Your task to perform on an android device: Open the map Image 0: 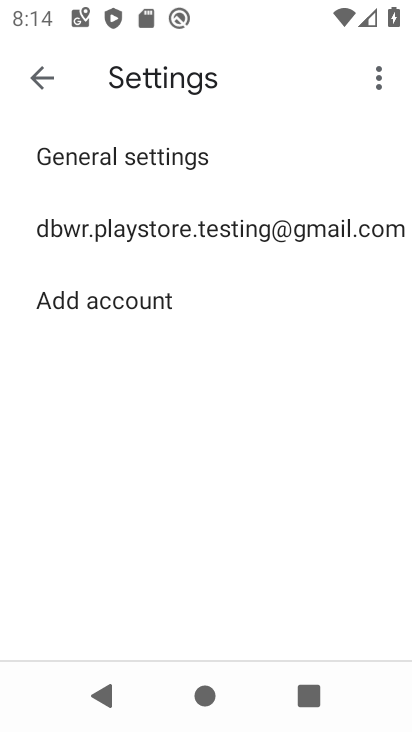
Step 0: press home button
Your task to perform on an android device: Open the map Image 1: 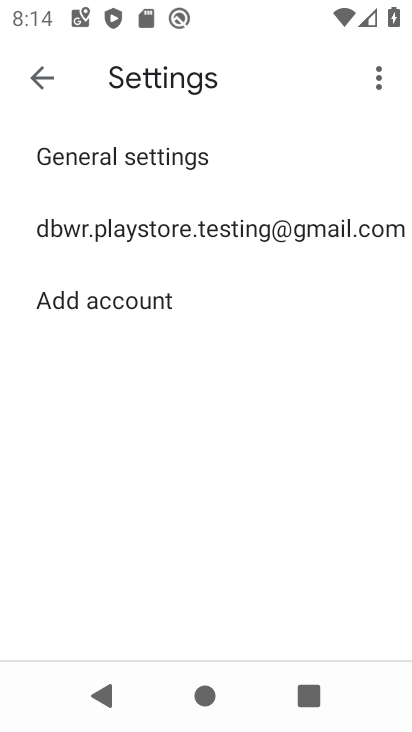
Step 1: press home button
Your task to perform on an android device: Open the map Image 2: 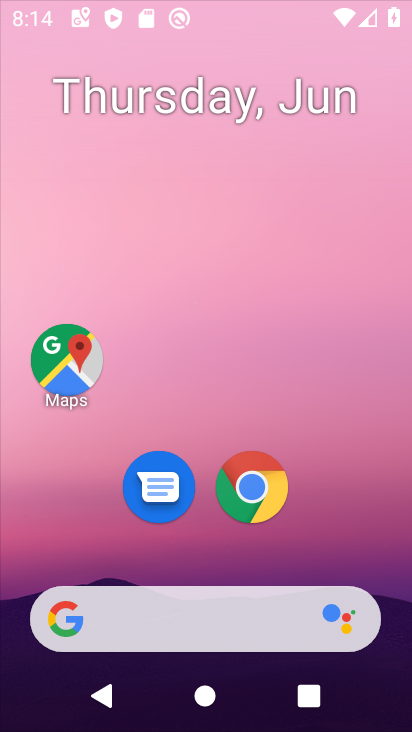
Step 2: drag from (208, 572) to (307, 26)
Your task to perform on an android device: Open the map Image 3: 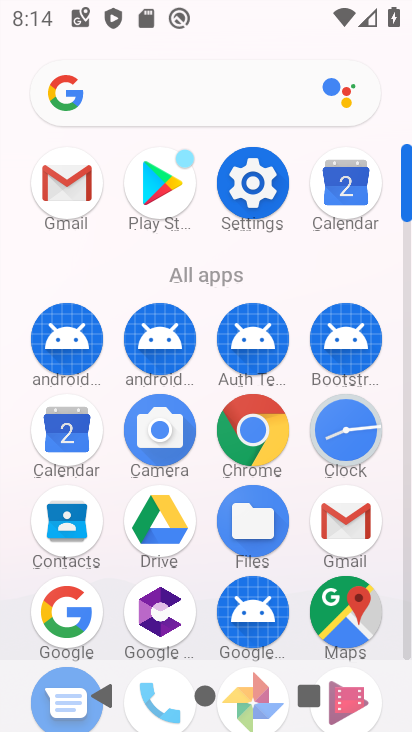
Step 3: click (347, 613)
Your task to perform on an android device: Open the map Image 4: 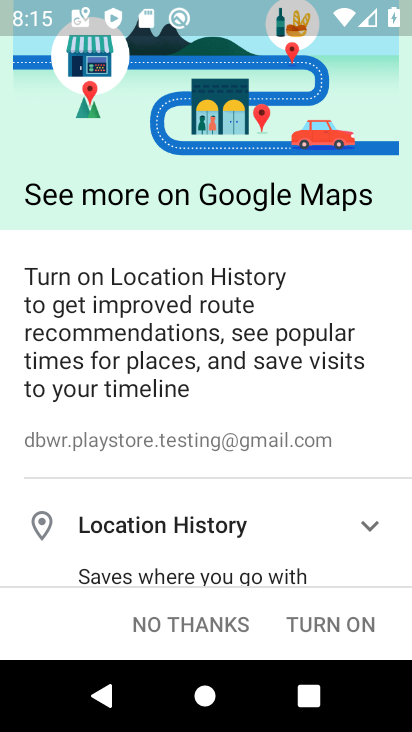
Step 4: drag from (268, 490) to (323, 124)
Your task to perform on an android device: Open the map Image 5: 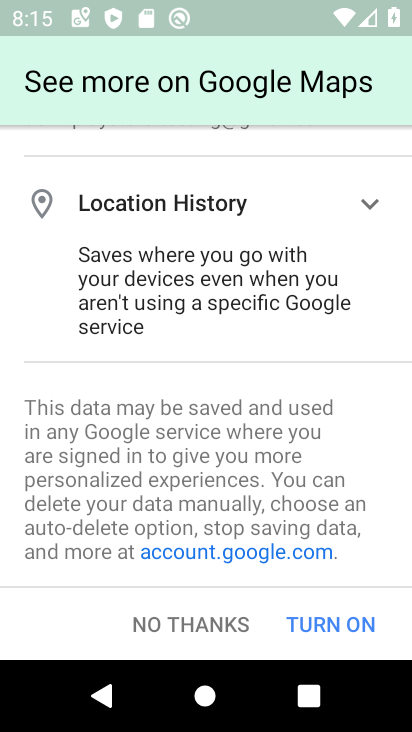
Step 5: drag from (157, 467) to (276, 163)
Your task to perform on an android device: Open the map Image 6: 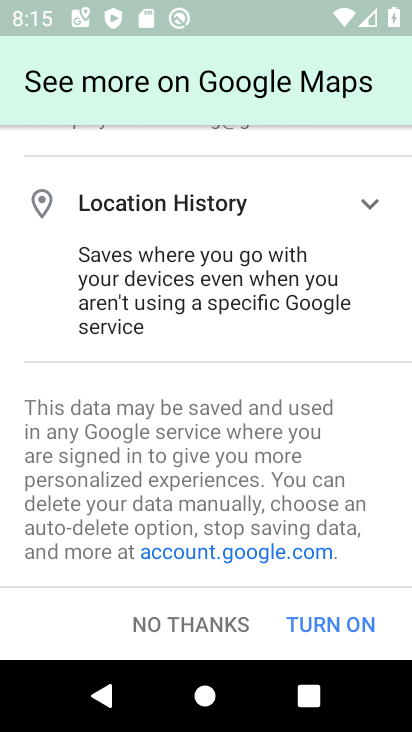
Step 6: click (367, 200)
Your task to perform on an android device: Open the map Image 7: 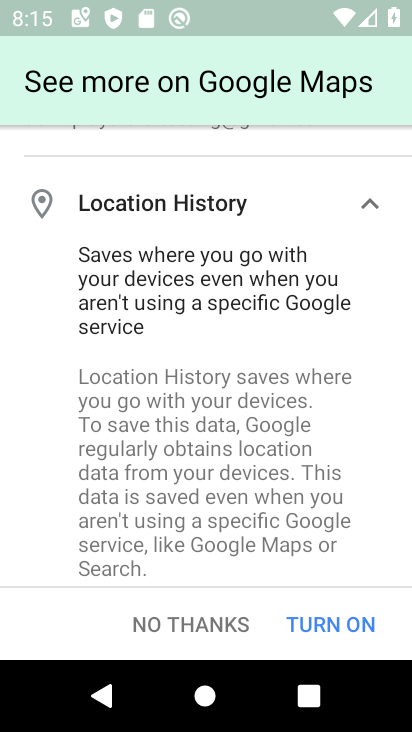
Step 7: click (366, 194)
Your task to perform on an android device: Open the map Image 8: 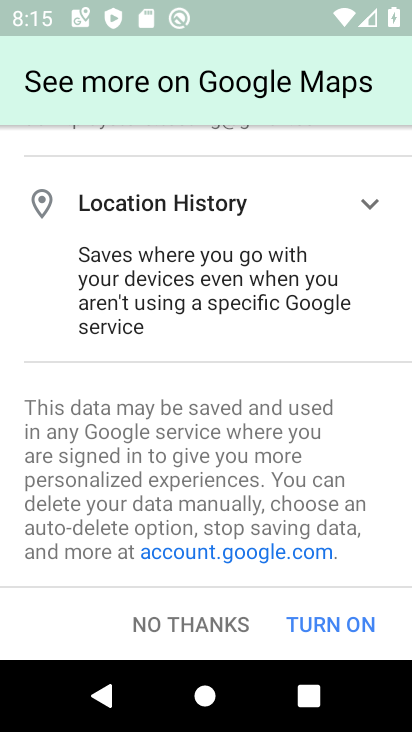
Step 8: drag from (224, 531) to (223, 232)
Your task to perform on an android device: Open the map Image 9: 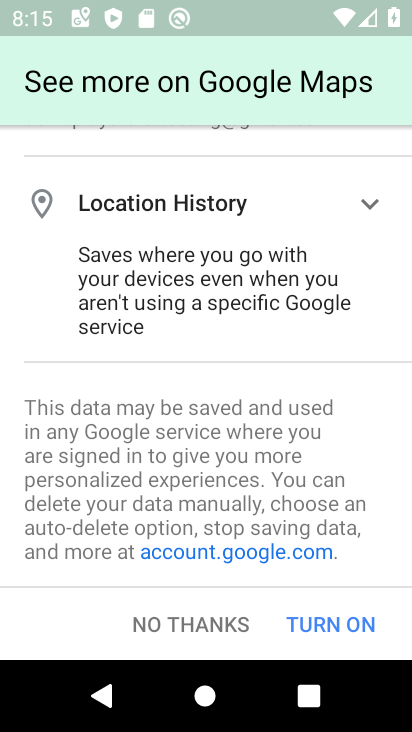
Step 9: click (323, 617)
Your task to perform on an android device: Open the map Image 10: 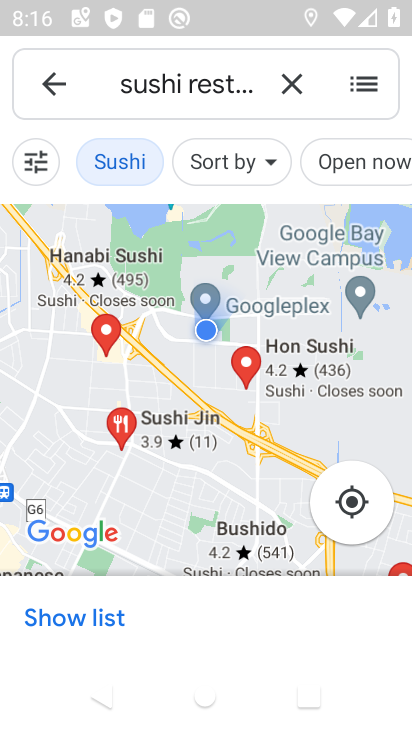
Step 10: task complete